Your task to perform on an android device: change alarm snooze length Image 0: 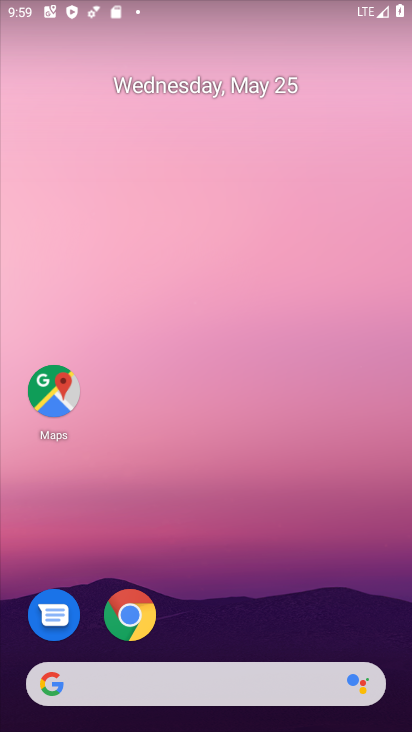
Step 0: drag from (274, 522) to (289, 45)
Your task to perform on an android device: change alarm snooze length Image 1: 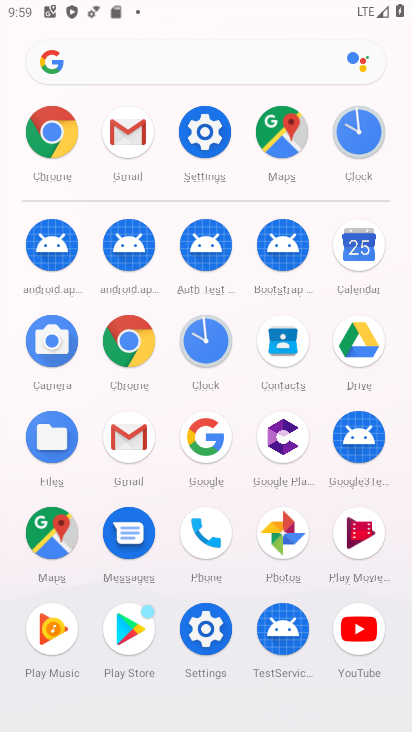
Step 1: click (359, 124)
Your task to perform on an android device: change alarm snooze length Image 2: 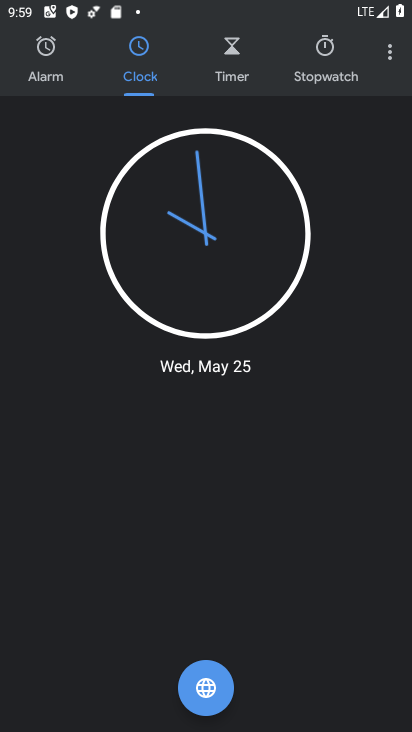
Step 2: click (390, 52)
Your task to perform on an android device: change alarm snooze length Image 3: 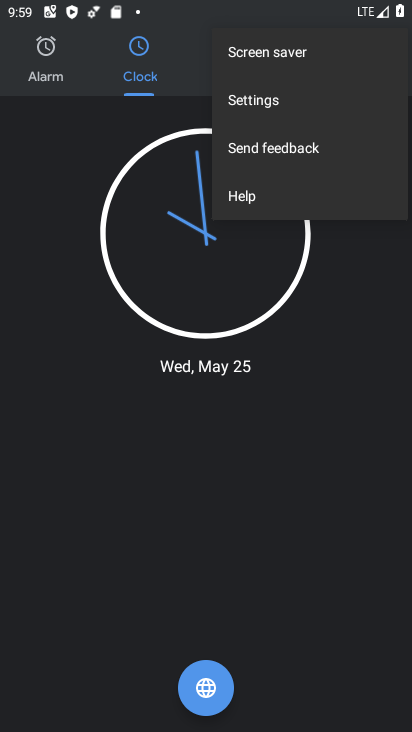
Step 3: click (309, 94)
Your task to perform on an android device: change alarm snooze length Image 4: 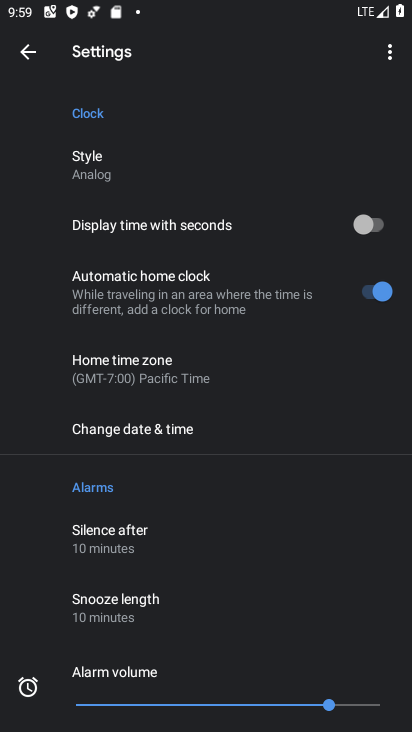
Step 4: click (136, 595)
Your task to perform on an android device: change alarm snooze length Image 5: 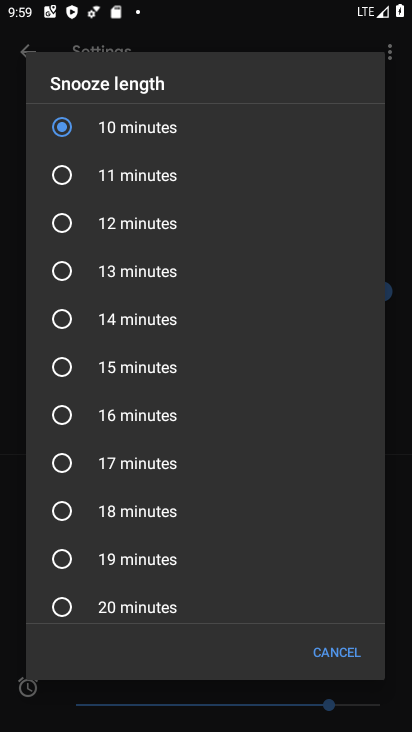
Step 5: click (88, 228)
Your task to perform on an android device: change alarm snooze length Image 6: 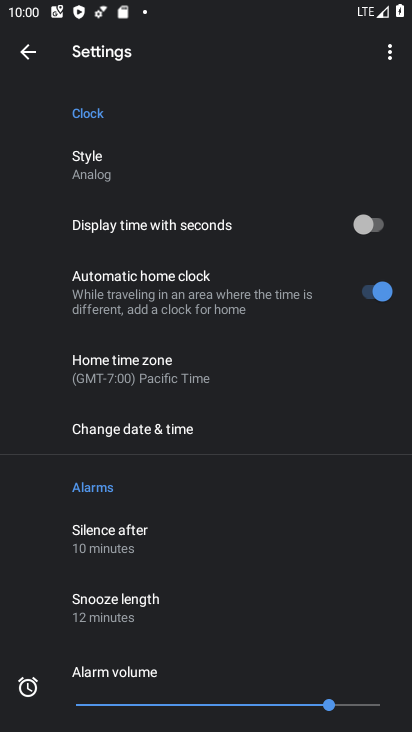
Step 6: task complete